Your task to perform on an android device: change text size in settings app Image 0: 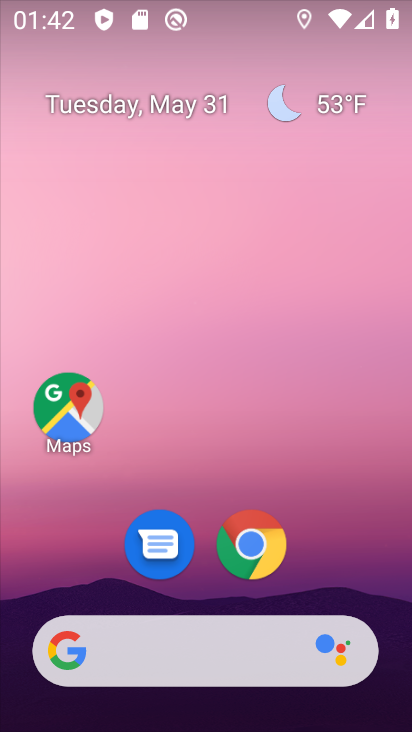
Step 0: drag from (320, 610) to (276, 205)
Your task to perform on an android device: change text size in settings app Image 1: 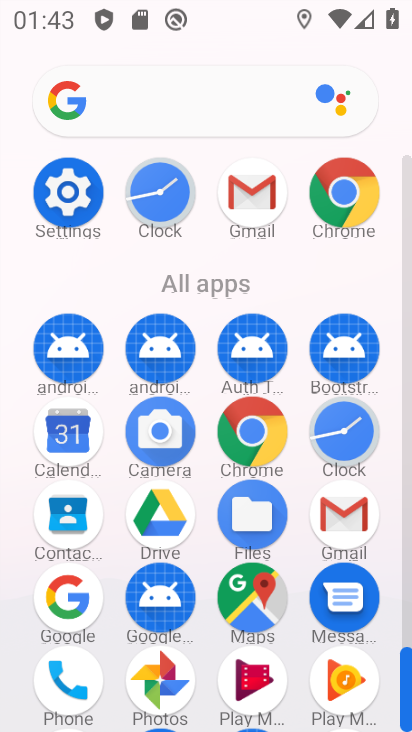
Step 1: click (72, 200)
Your task to perform on an android device: change text size in settings app Image 2: 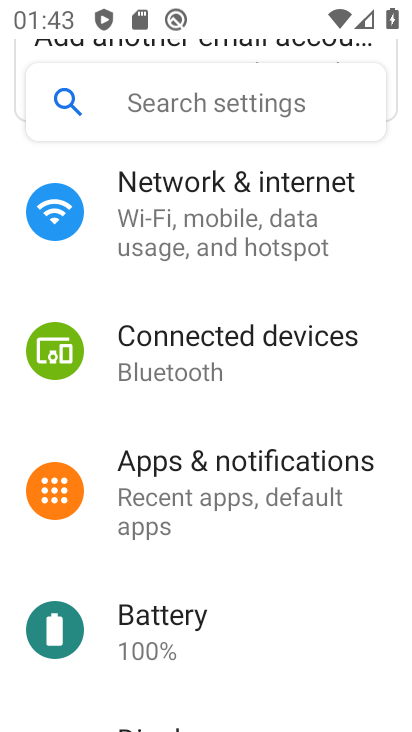
Step 2: drag from (216, 597) to (195, 233)
Your task to perform on an android device: change text size in settings app Image 3: 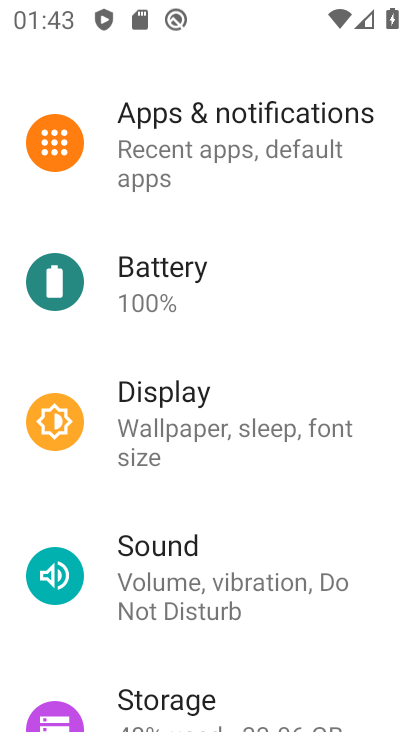
Step 3: drag from (209, 674) to (185, 443)
Your task to perform on an android device: change text size in settings app Image 4: 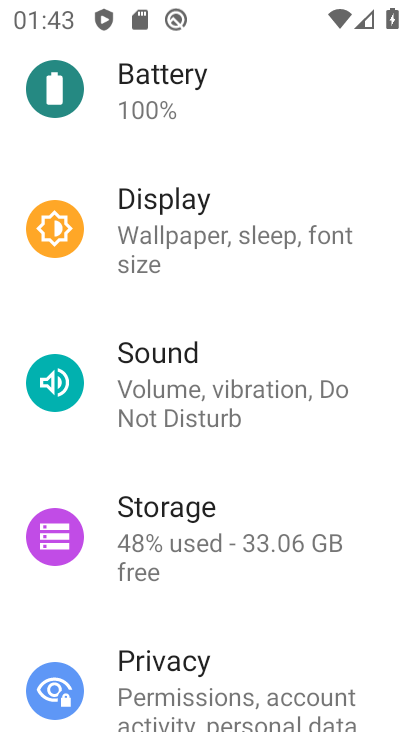
Step 4: click (163, 241)
Your task to perform on an android device: change text size in settings app Image 5: 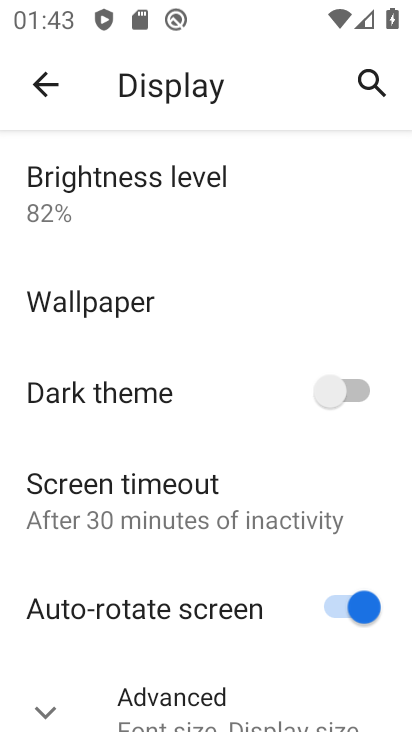
Step 5: drag from (204, 681) to (182, 400)
Your task to perform on an android device: change text size in settings app Image 6: 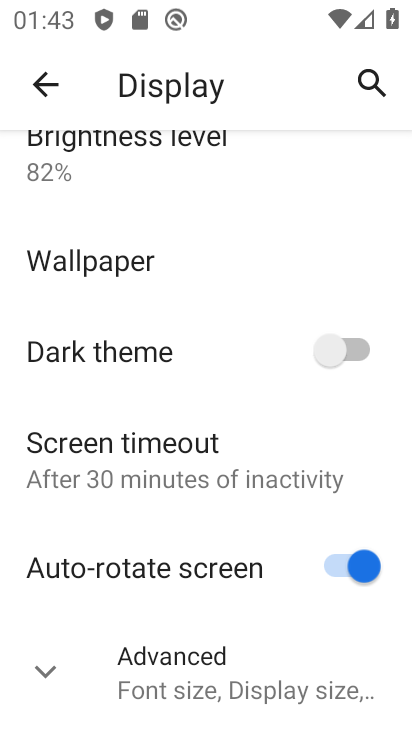
Step 6: click (157, 682)
Your task to perform on an android device: change text size in settings app Image 7: 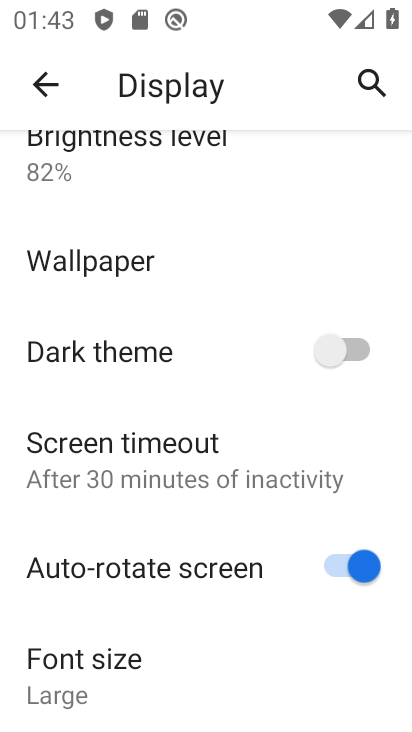
Step 7: drag from (175, 675) to (172, 531)
Your task to perform on an android device: change text size in settings app Image 8: 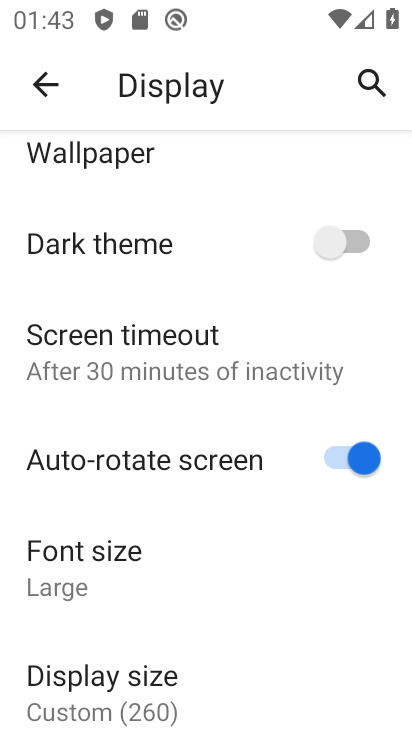
Step 8: click (163, 558)
Your task to perform on an android device: change text size in settings app Image 9: 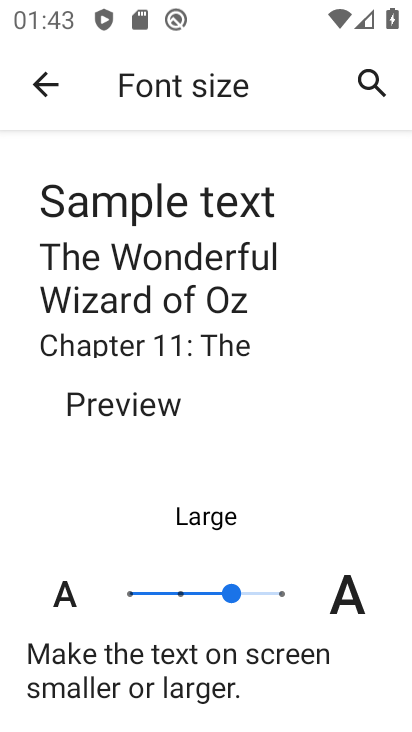
Step 9: task complete